Your task to perform on an android device: Clear the shopping cart on amazon.com. Add "acer predator" to the cart on amazon.com, then select checkout. Image 0: 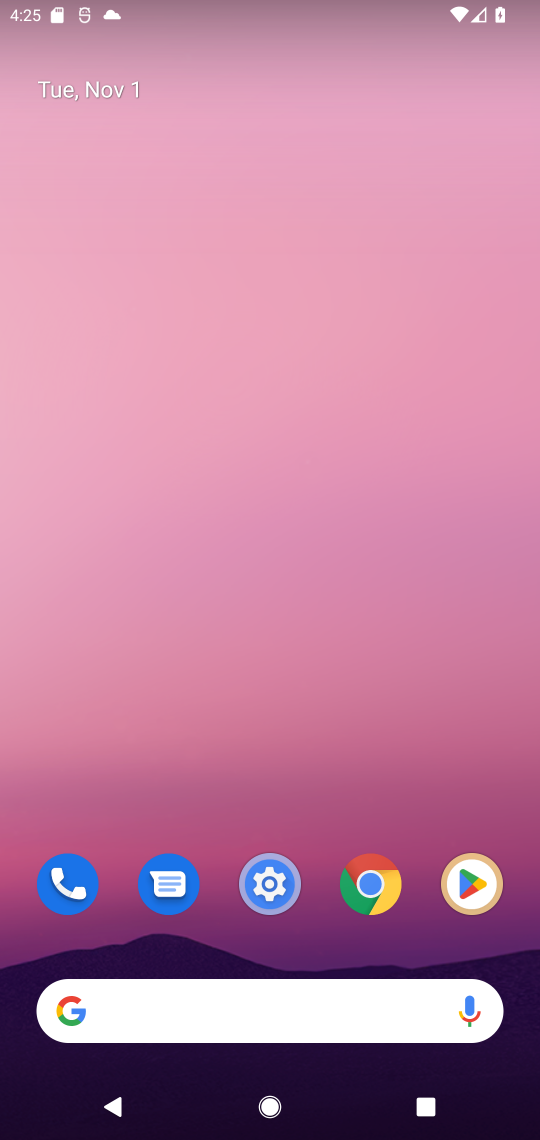
Step 0: click (110, 999)
Your task to perform on an android device: Clear the shopping cart on amazon.com. Add "acer predator" to the cart on amazon.com, then select checkout. Image 1: 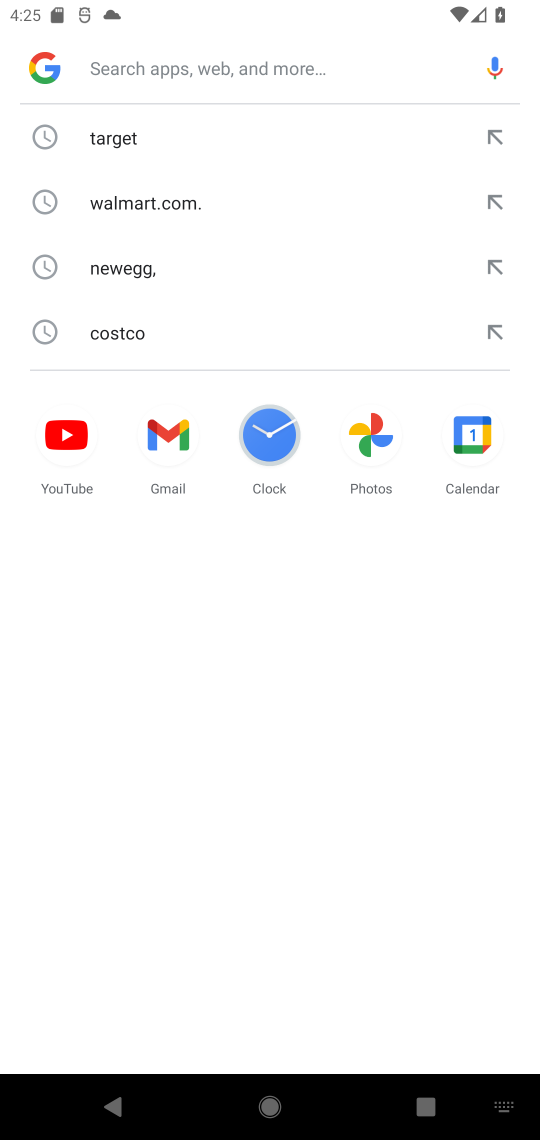
Step 1: type "amazon.com"
Your task to perform on an android device: Clear the shopping cart on amazon.com. Add "acer predator" to the cart on amazon.com, then select checkout. Image 2: 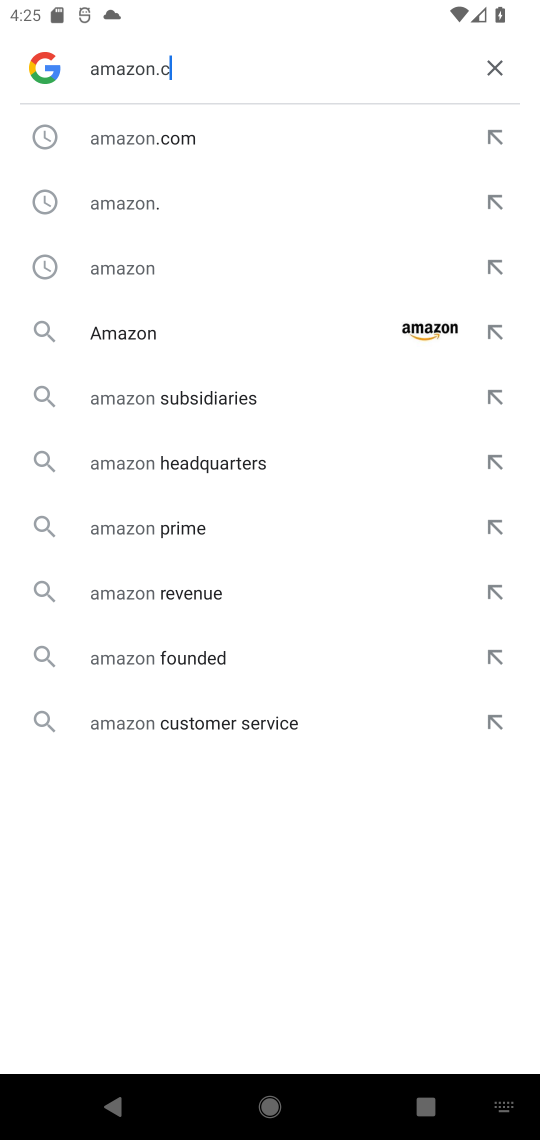
Step 2: press enter
Your task to perform on an android device: Clear the shopping cart on amazon.com. Add "acer predator" to the cart on amazon.com, then select checkout. Image 3: 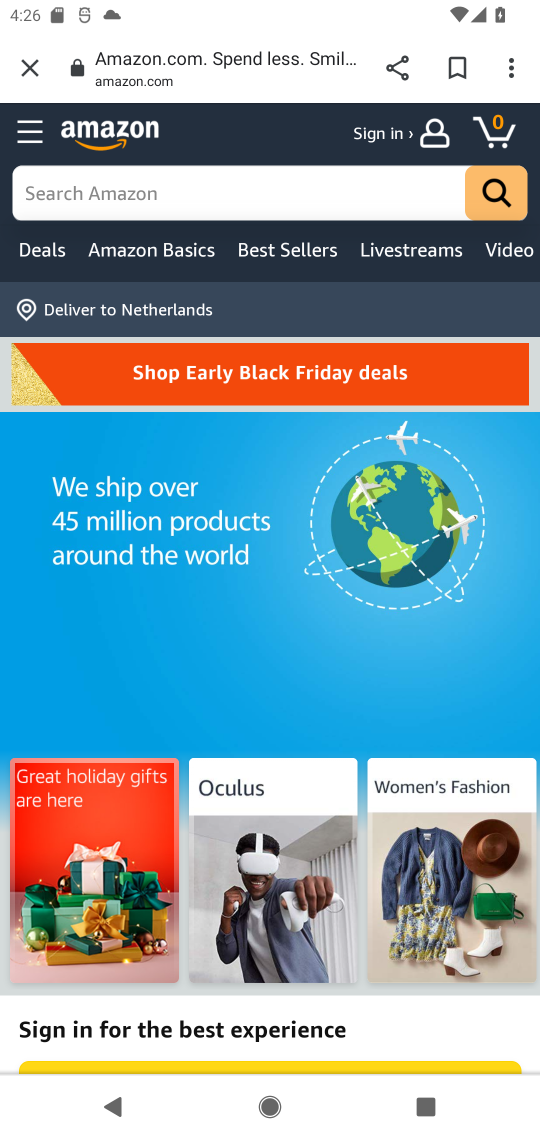
Step 3: click (496, 121)
Your task to perform on an android device: Clear the shopping cart on amazon.com. Add "acer predator" to the cart on amazon.com, then select checkout. Image 4: 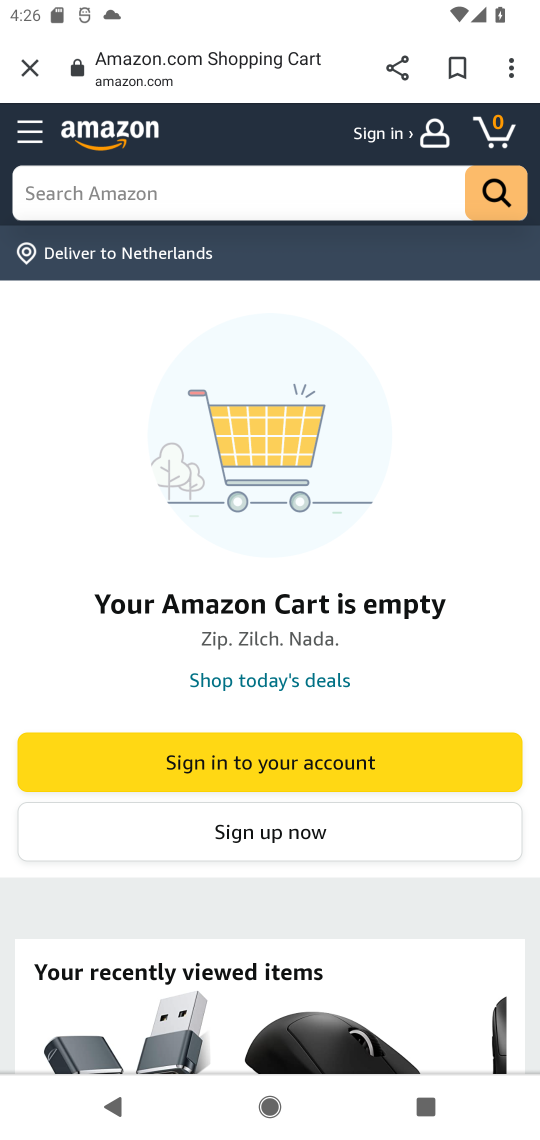
Step 4: click (289, 180)
Your task to perform on an android device: Clear the shopping cart on amazon.com. Add "acer predator" to the cart on amazon.com, then select checkout. Image 5: 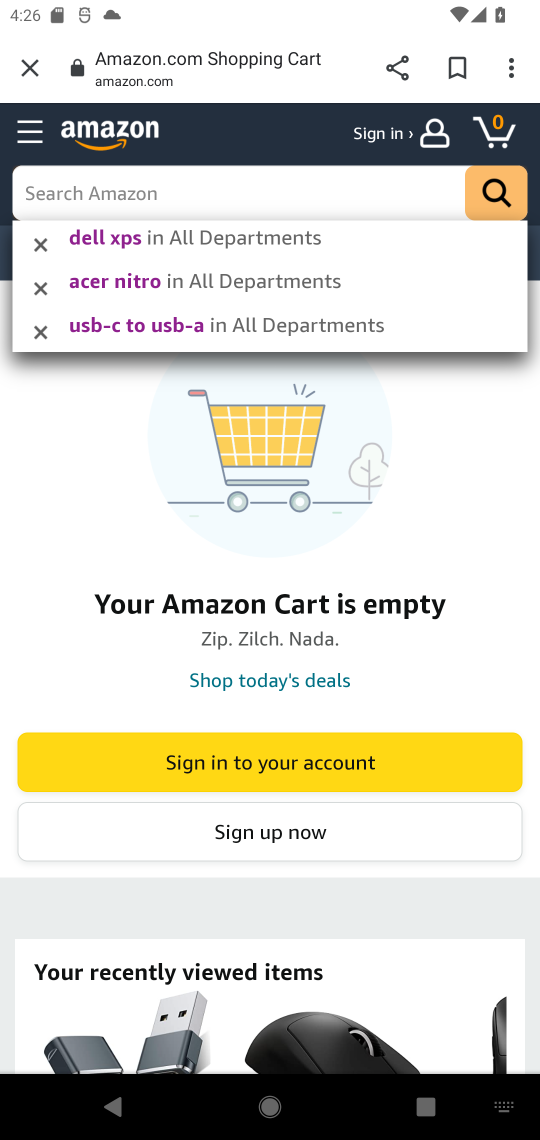
Step 5: type "acer predator"
Your task to perform on an android device: Clear the shopping cart on amazon.com. Add "acer predator" to the cart on amazon.com, then select checkout. Image 6: 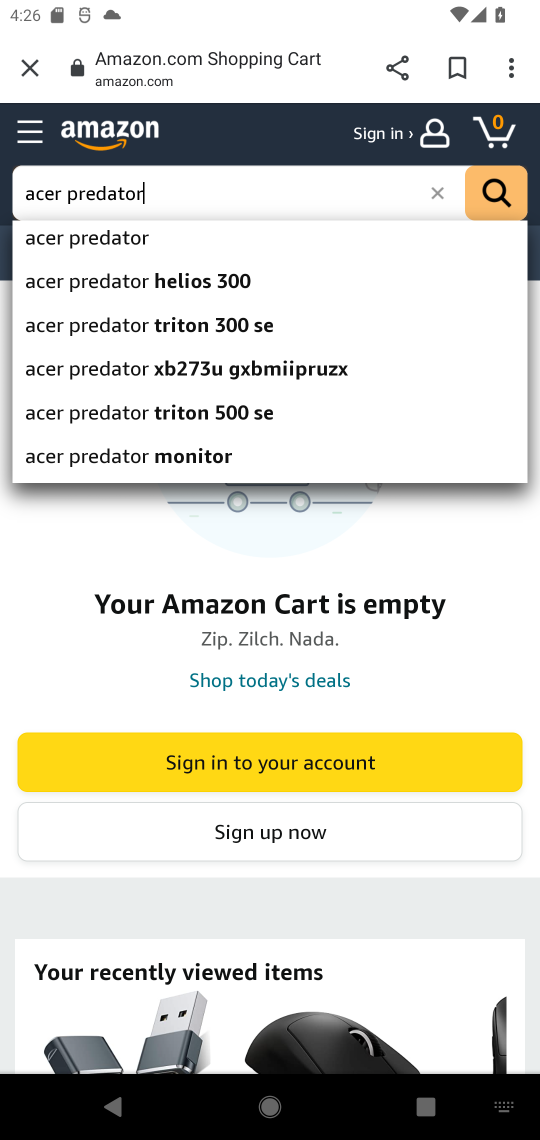
Step 6: click (491, 198)
Your task to perform on an android device: Clear the shopping cart on amazon.com. Add "acer predator" to the cart on amazon.com, then select checkout. Image 7: 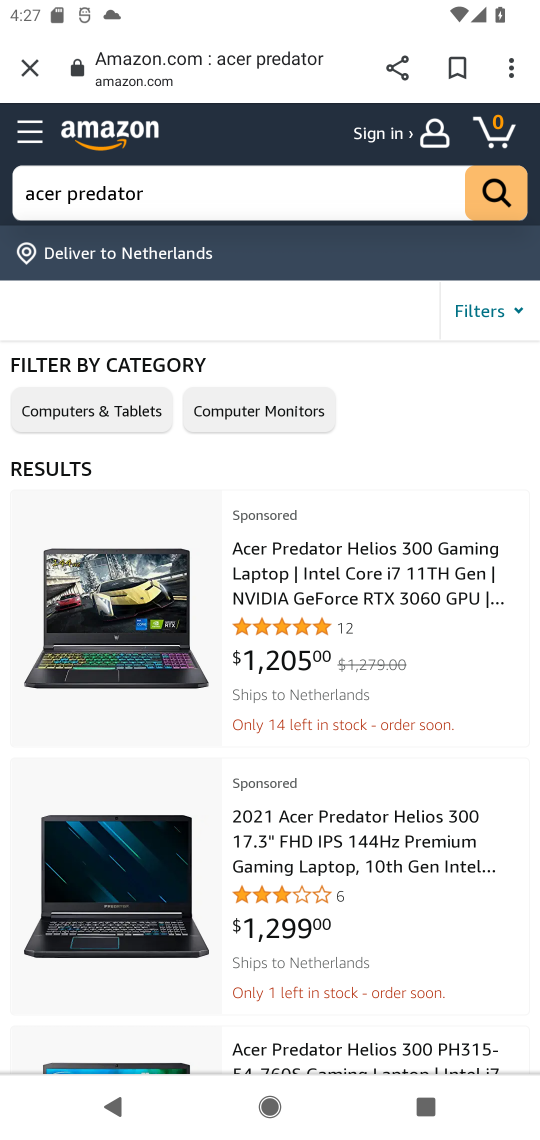
Step 7: drag from (330, 919) to (320, 704)
Your task to perform on an android device: Clear the shopping cart on amazon.com. Add "acer predator" to the cart on amazon.com, then select checkout. Image 8: 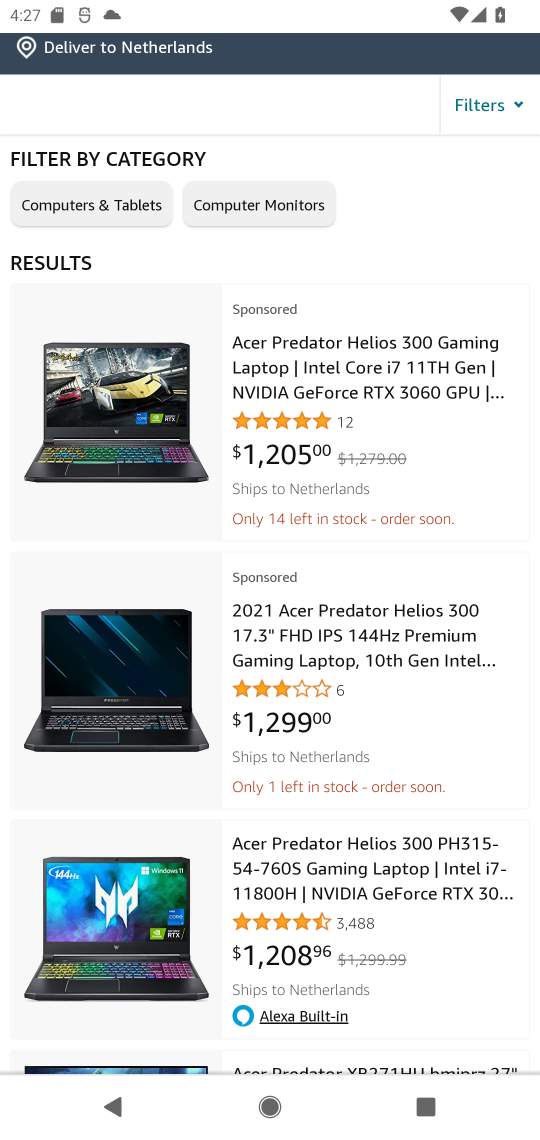
Step 8: drag from (369, 933) to (353, 740)
Your task to perform on an android device: Clear the shopping cart on amazon.com. Add "acer predator" to the cart on amazon.com, then select checkout. Image 9: 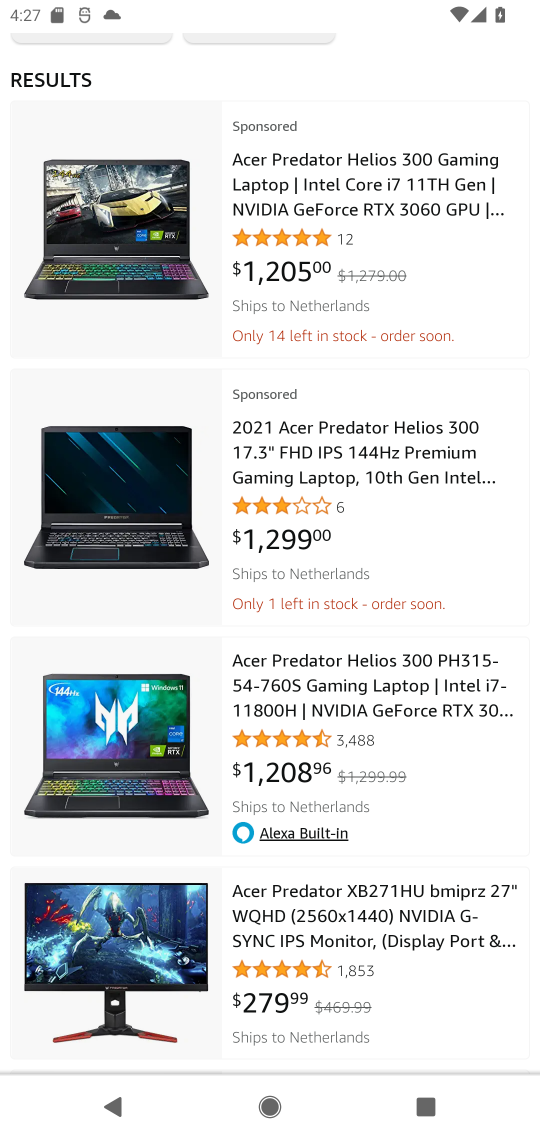
Step 9: click (323, 183)
Your task to perform on an android device: Clear the shopping cart on amazon.com. Add "acer predator" to the cart on amazon.com, then select checkout. Image 10: 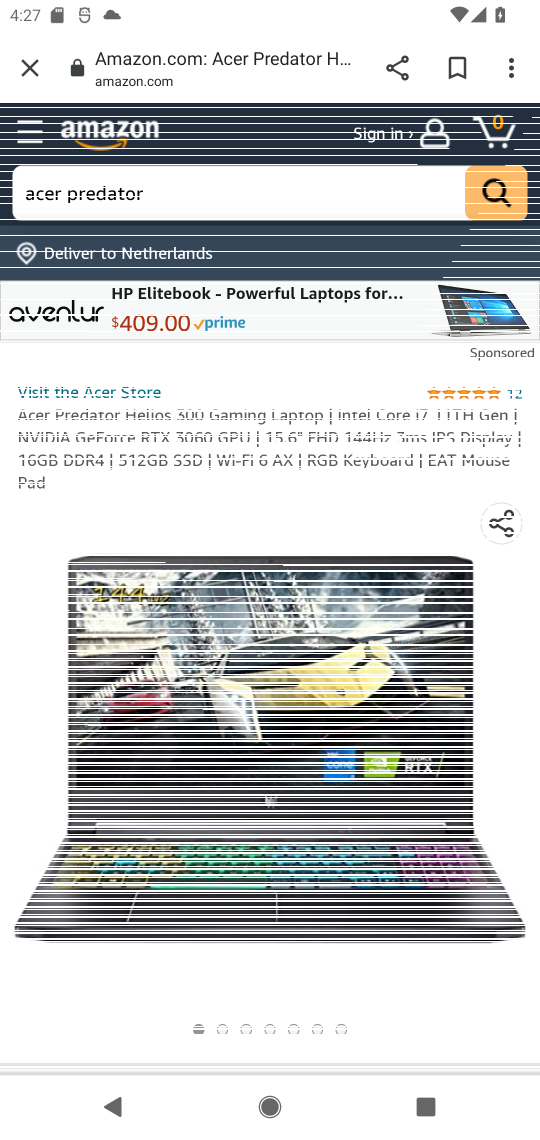
Step 10: drag from (316, 827) to (328, 500)
Your task to perform on an android device: Clear the shopping cart on amazon.com. Add "acer predator" to the cart on amazon.com, then select checkout. Image 11: 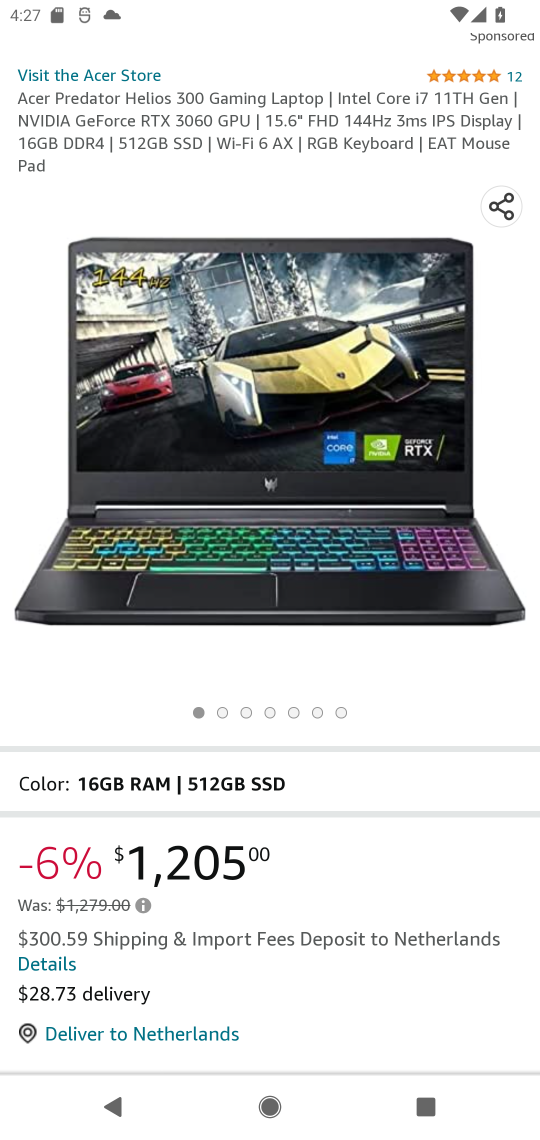
Step 11: drag from (313, 935) to (320, 549)
Your task to perform on an android device: Clear the shopping cart on amazon.com. Add "acer predator" to the cart on amazon.com, then select checkout. Image 12: 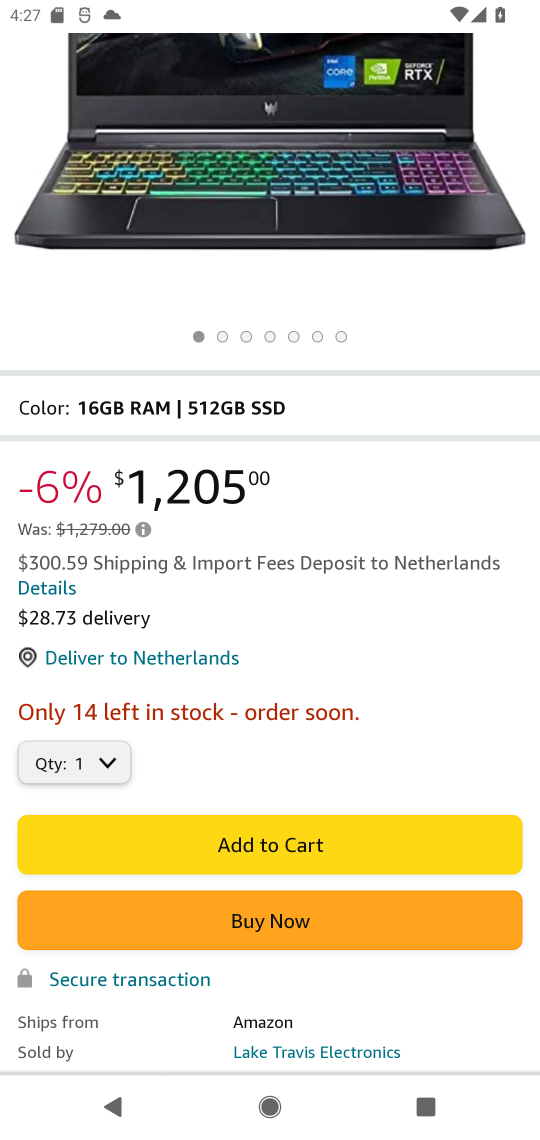
Step 12: click (309, 838)
Your task to perform on an android device: Clear the shopping cart on amazon.com. Add "acer predator" to the cart on amazon.com, then select checkout. Image 13: 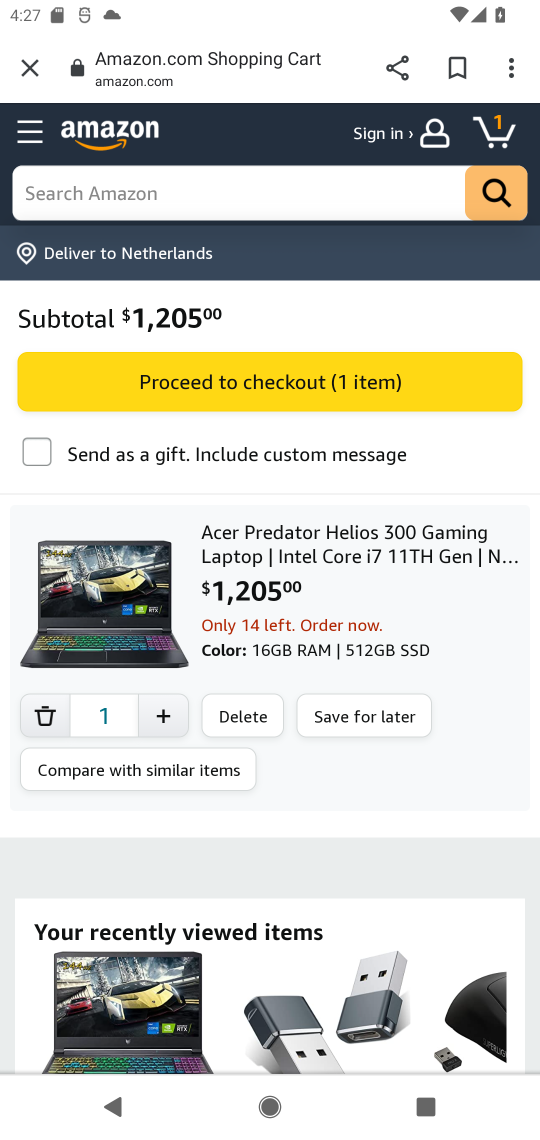
Step 13: drag from (298, 906) to (287, 575)
Your task to perform on an android device: Clear the shopping cart on amazon.com. Add "acer predator" to the cart on amazon.com, then select checkout. Image 14: 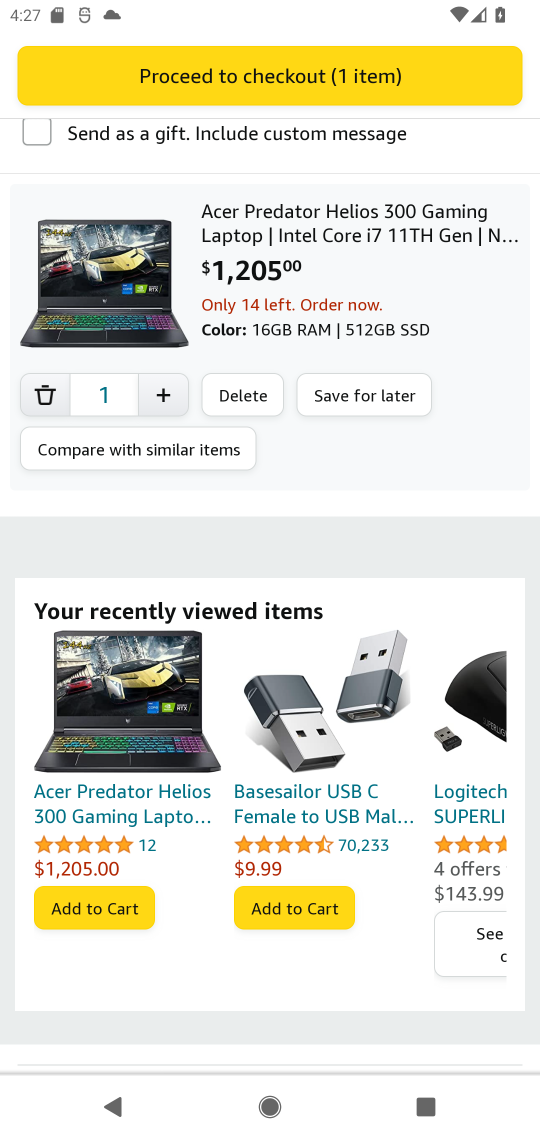
Step 14: click (276, 65)
Your task to perform on an android device: Clear the shopping cart on amazon.com. Add "acer predator" to the cart on amazon.com, then select checkout. Image 15: 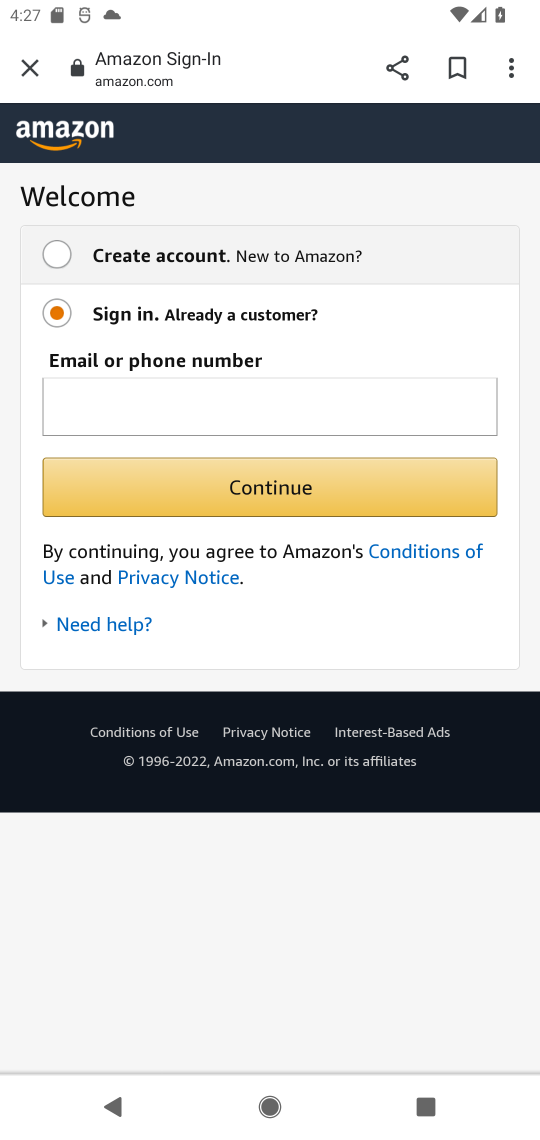
Step 15: task complete